Your task to perform on an android device: Go to eBay Image 0: 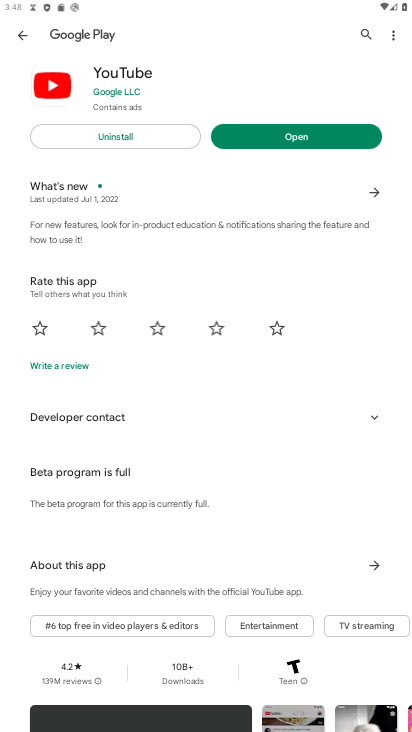
Step 0: press home button
Your task to perform on an android device: Go to eBay Image 1: 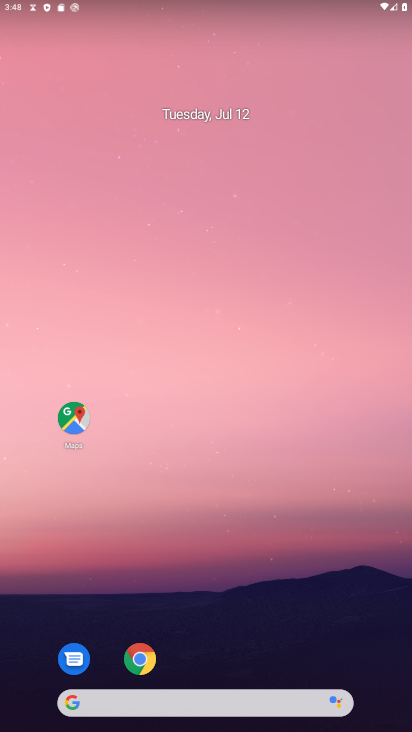
Step 1: click (190, 702)
Your task to perform on an android device: Go to eBay Image 2: 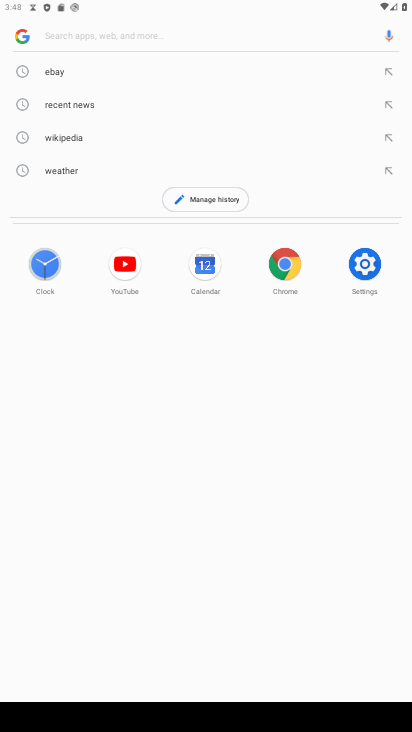
Step 2: type "eBay"
Your task to perform on an android device: Go to eBay Image 3: 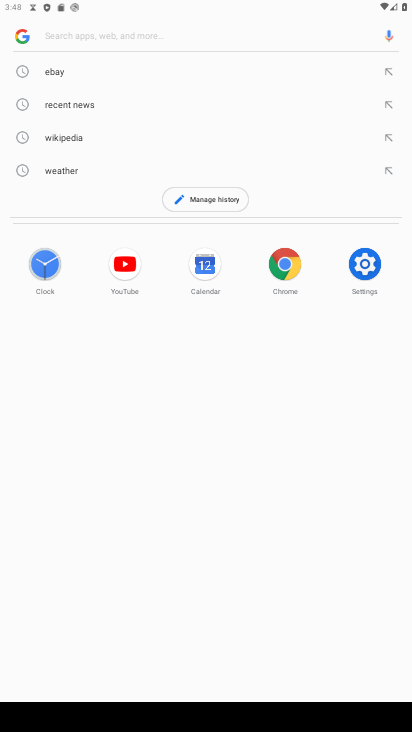
Step 3: click (55, 32)
Your task to perform on an android device: Go to eBay Image 4: 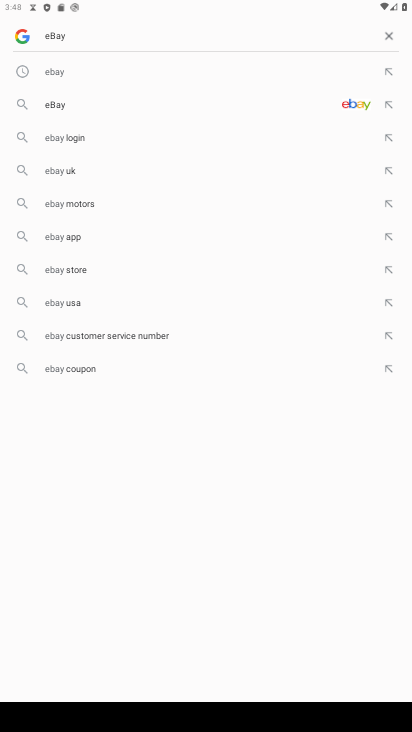
Step 4: press enter
Your task to perform on an android device: Go to eBay Image 5: 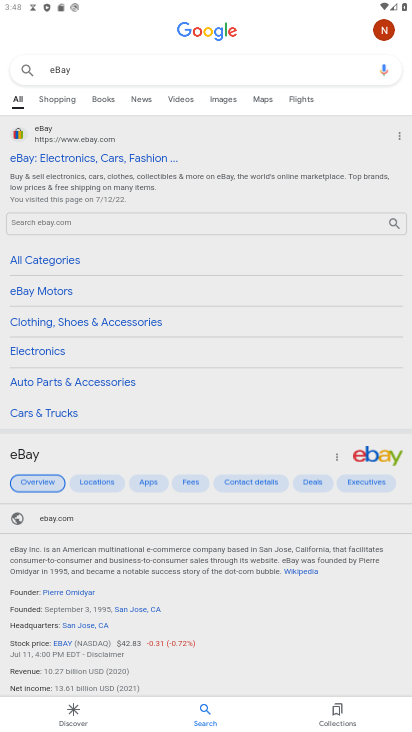
Step 5: click (38, 127)
Your task to perform on an android device: Go to eBay Image 6: 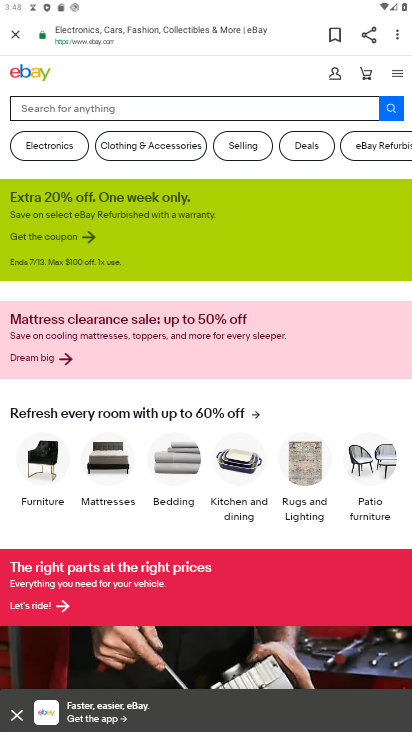
Step 6: task complete